Your task to perform on an android device: Go to Wikipedia Image 0: 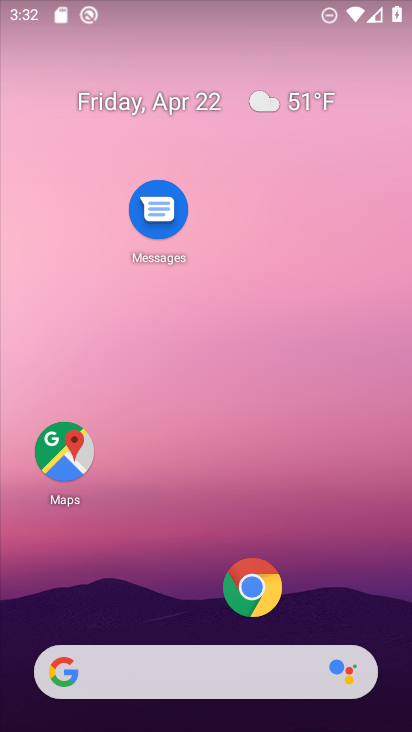
Step 0: click (193, 653)
Your task to perform on an android device: Go to Wikipedia Image 1: 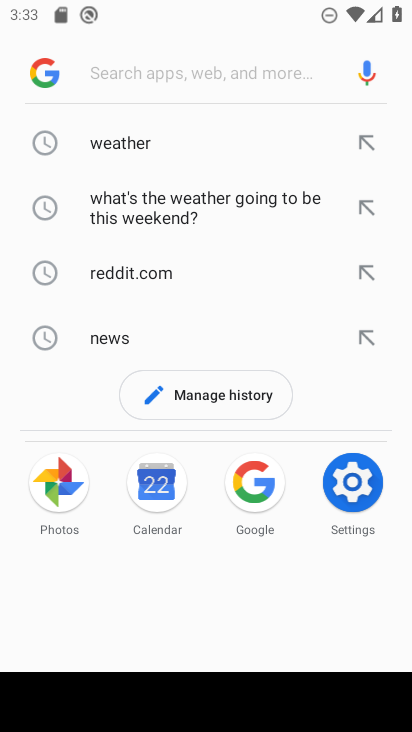
Step 1: type "Wikipedia"
Your task to perform on an android device: Go to Wikipedia Image 2: 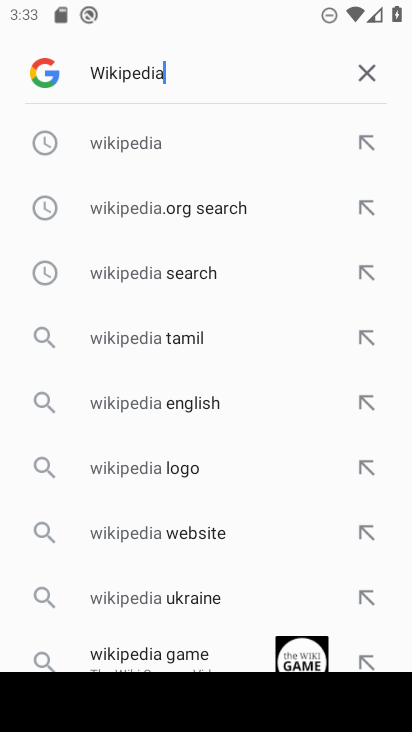
Step 2: click (158, 145)
Your task to perform on an android device: Go to Wikipedia Image 3: 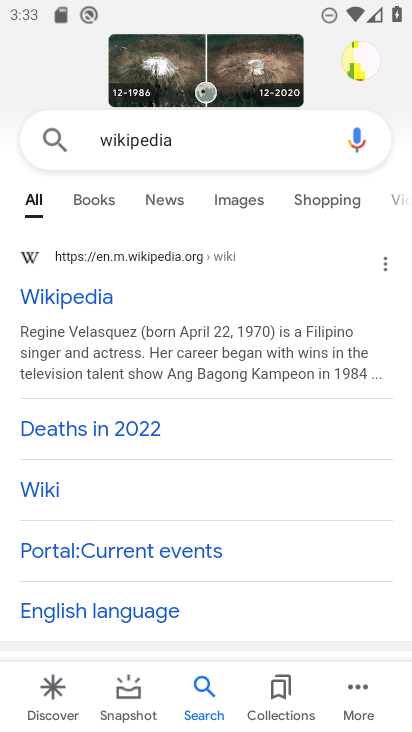
Step 3: click (95, 300)
Your task to perform on an android device: Go to Wikipedia Image 4: 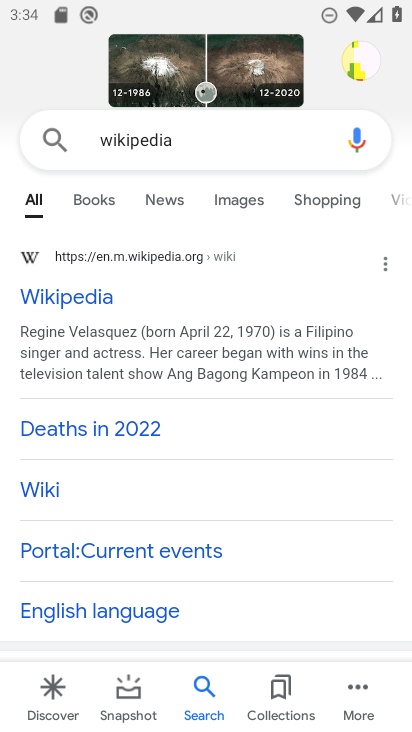
Step 4: click (59, 306)
Your task to perform on an android device: Go to Wikipedia Image 5: 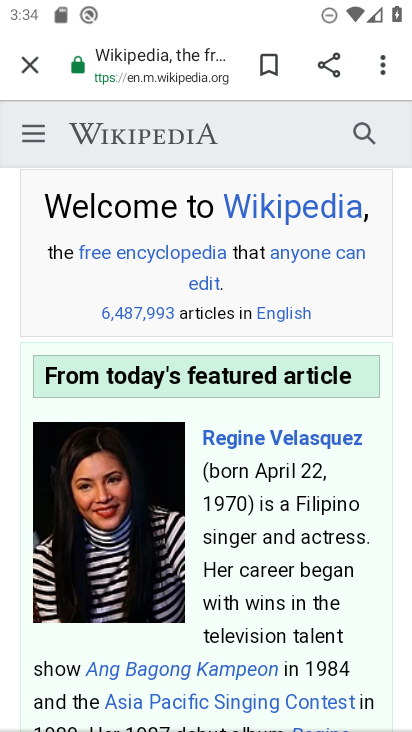
Step 5: task complete